Your task to perform on an android device: change keyboard looks Image 0: 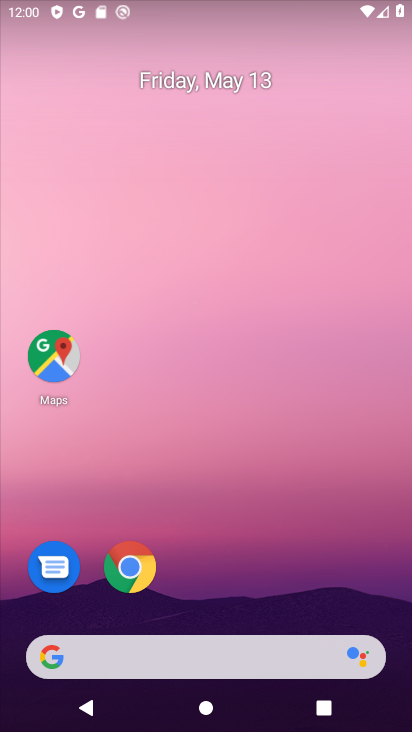
Step 0: click (231, 274)
Your task to perform on an android device: change keyboard looks Image 1: 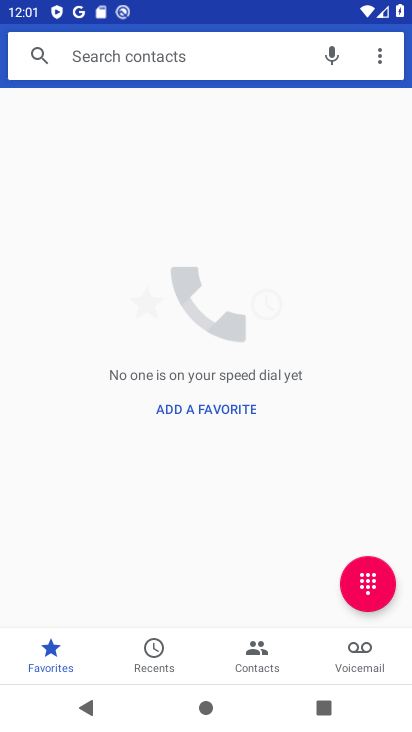
Step 1: drag from (143, 527) to (186, 230)
Your task to perform on an android device: change keyboard looks Image 2: 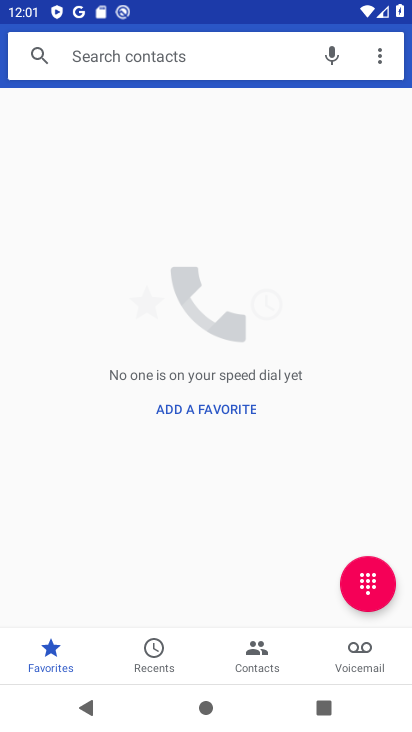
Step 2: drag from (196, 539) to (223, 369)
Your task to perform on an android device: change keyboard looks Image 3: 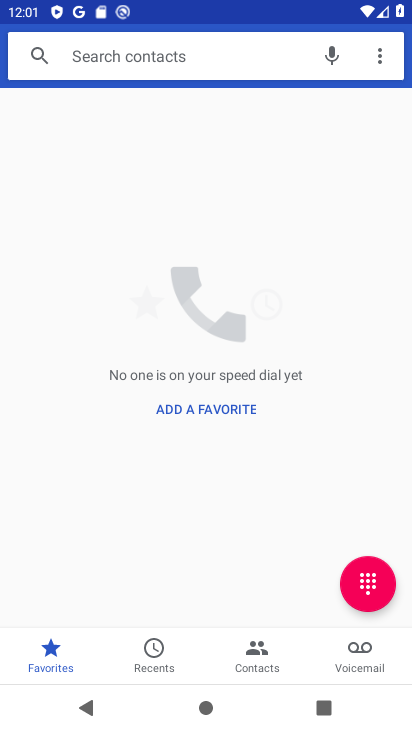
Step 3: press home button
Your task to perform on an android device: change keyboard looks Image 4: 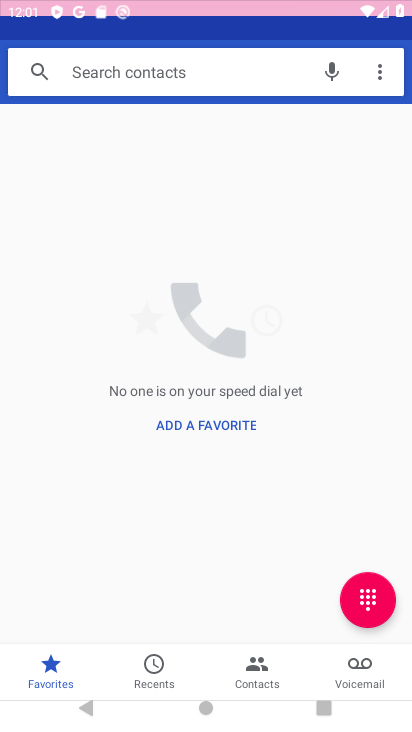
Step 4: press home button
Your task to perform on an android device: change keyboard looks Image 5: 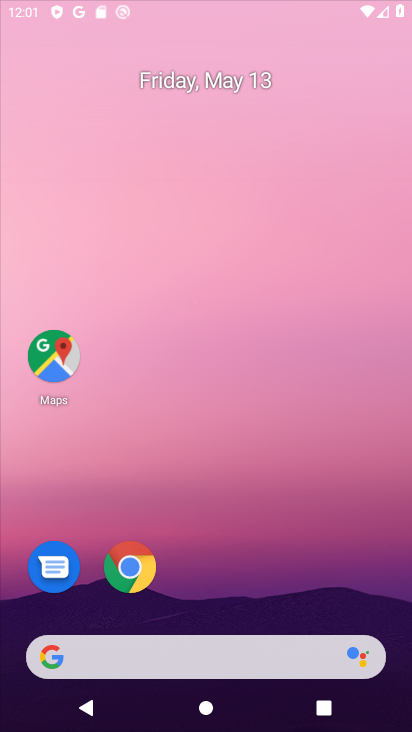
Step 5: drag from (223, 593) to (223, 230)
Your task to perform on an android device: change keyboard looks Image 6: 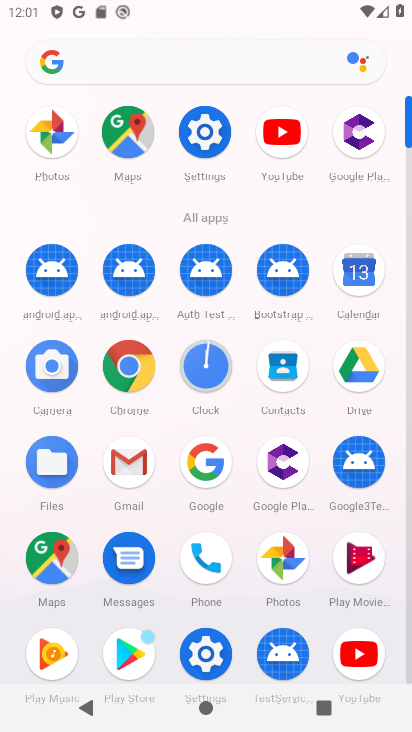
Step 6: click (199, 128)
Your task to perform on an android device: change keyboard looks Image 7: 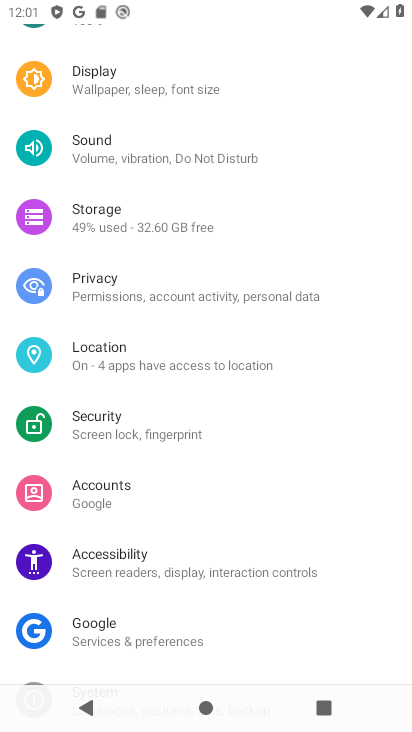
Step 7: drag from (164, 598) to (170, 261)
Your task to perform on an android device: change keyboard looks Image 8: 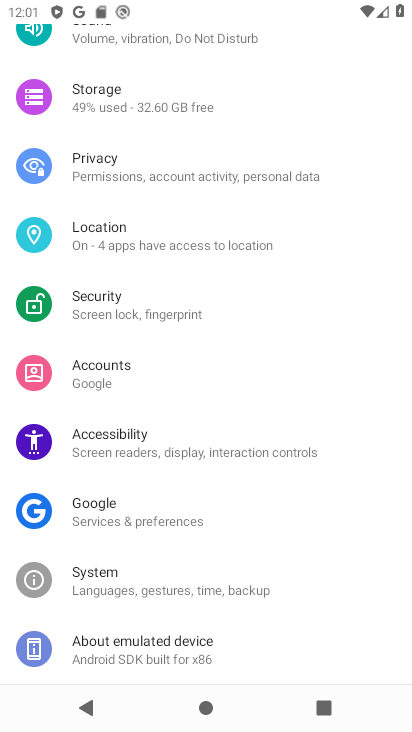
Step 8: click (188, 583)
Your task to perform on an android device: change keyboard looks Image 9: 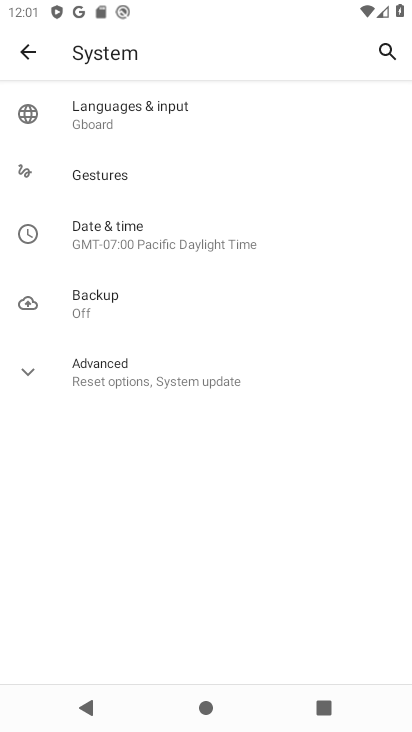
Step 9: click (157, 116)
Your task to perform on an android device: change keyboard looks Image 10: 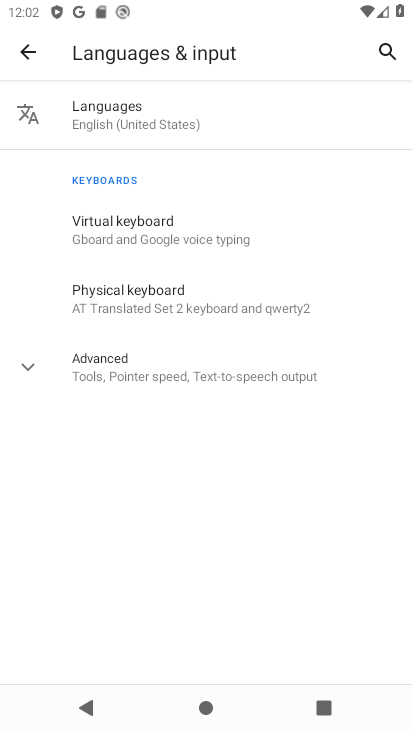
Step 10: click (165, 240)
Your task to perform on an android device: change keyboard looks Image 11: 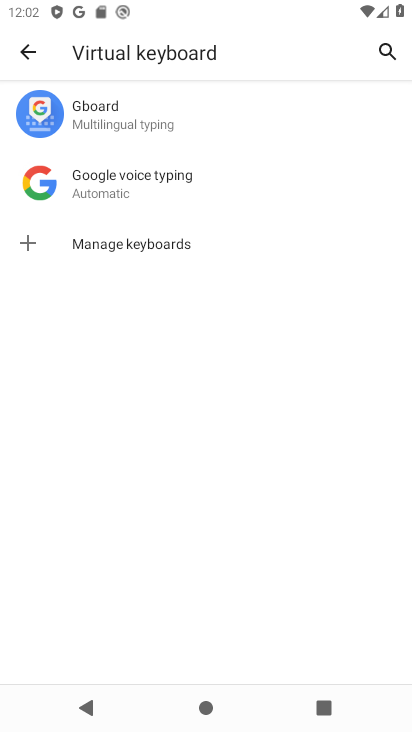
Step 11: click (130, 126)
Your task to perform on an android device: change keyboard looks Image 12: 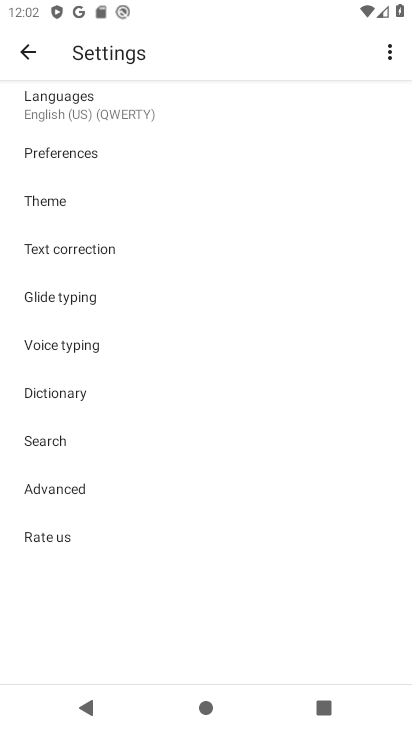
Step 12: click (131, 201)
Your task to perform on an android device: change keyboard looks Image 13: 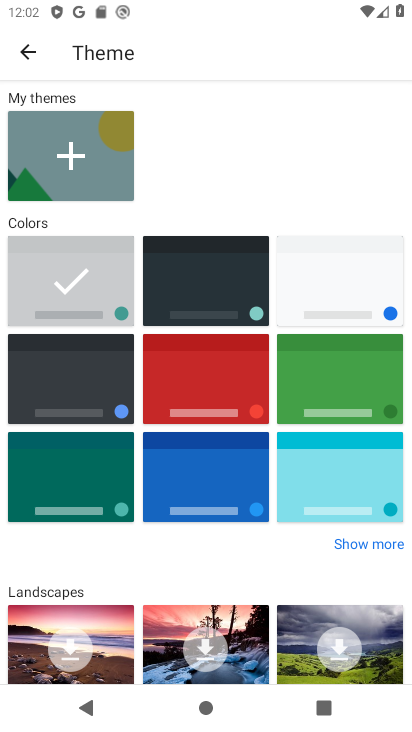
Step 13: click (213, 268)
Your task to perform on an android device: change keyboard looks Image 14: 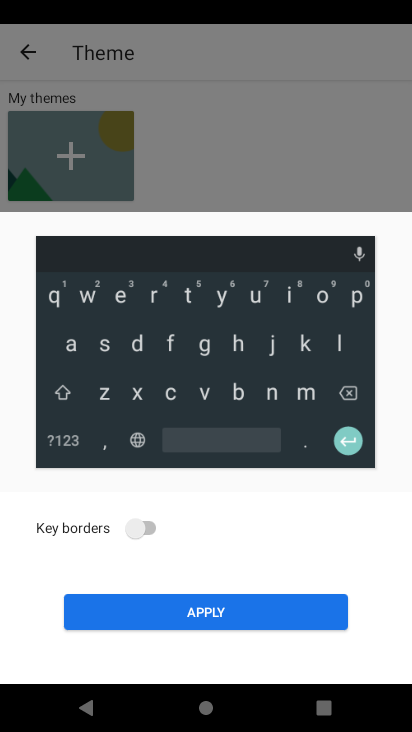
Step 14: click (203, 616)
Your task to perform on an android device: change keyboard looks Image 15: 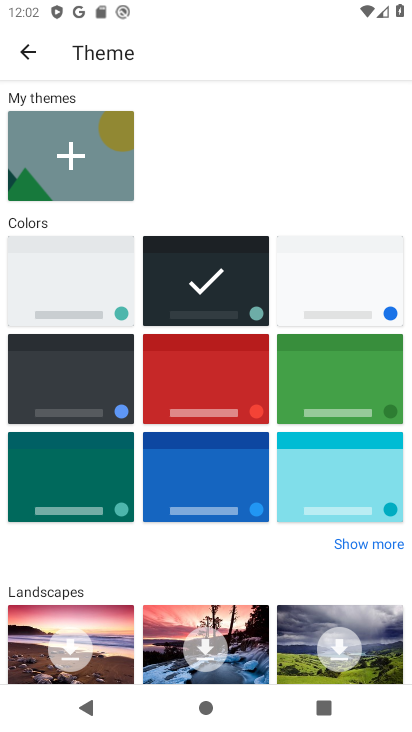
Step 15: task complete